Your task to perform on an android device: change keyboard looks Image 0: 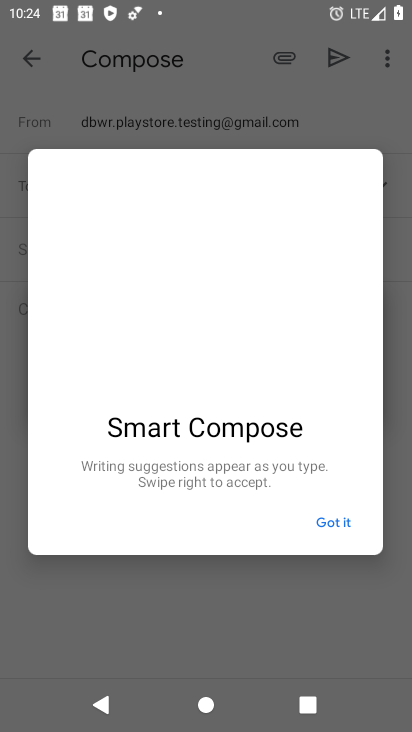
Step 0: press home button
Your task to perform on an android device: change keyboard looks Image 1: 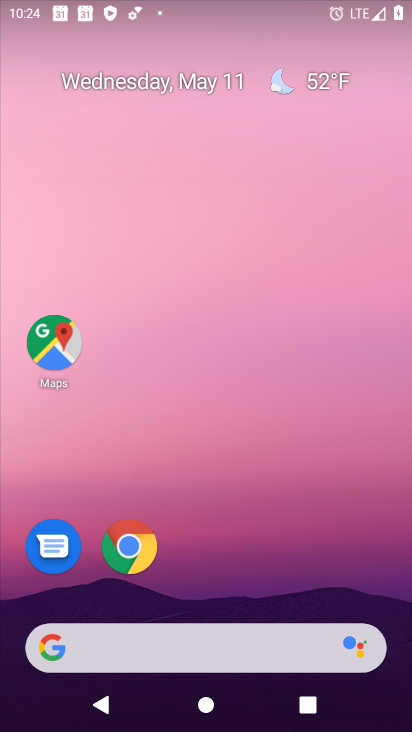
Step 1: drag from (226, 658) to (271, 191)
Your task to perform on an android device: change keyboard looks Image 2: 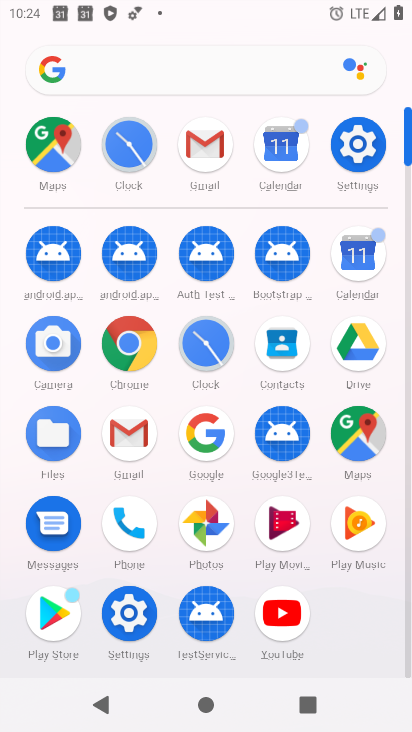
Step 2: click (126, 612)
Your task to perform on an android device: change keyboard looks Image 3: 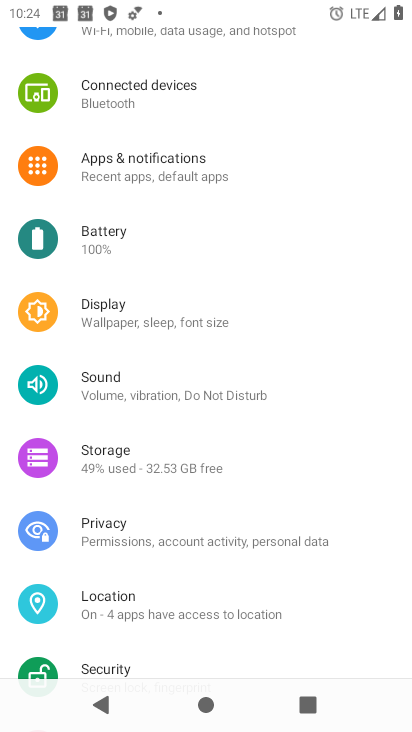
Step 3: drag from (196, 576) to (163, 46)
Your task to perform on an android device: change keyboard looks Image 4: 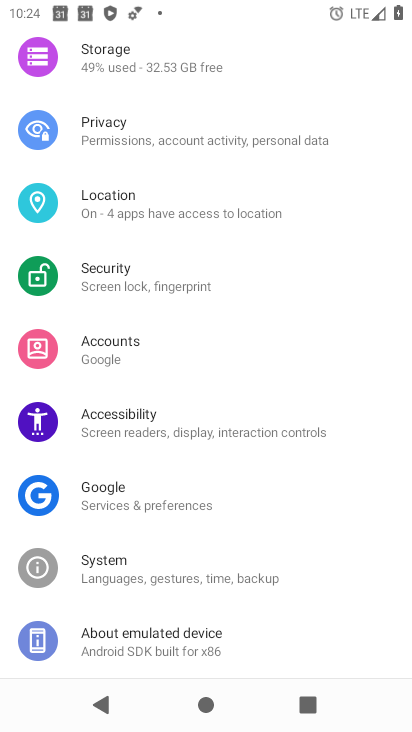
Step 4: click (178, 590)
Your task to perform on an android device: change keyboard looks Image 5: 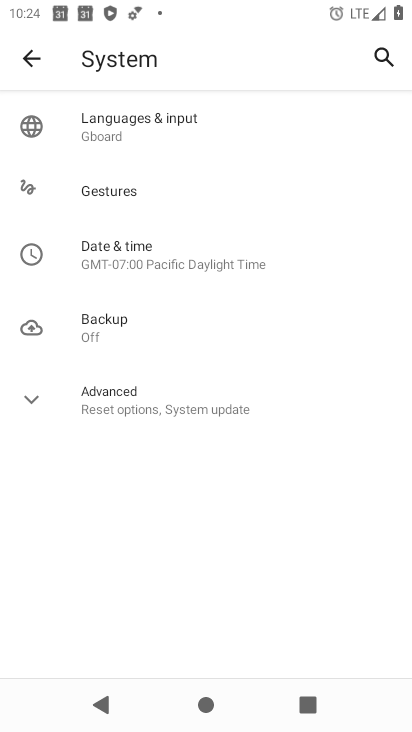
Step 5: click (111, 122)
Your task to perform on an android device: change keyboard looks Image 6: 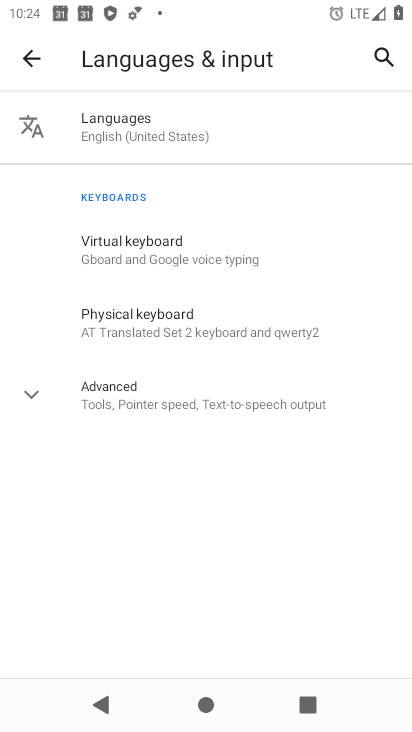
Step 6: click (177, 280)
Your task to perform on an android device: change keyboard looks Image 7: 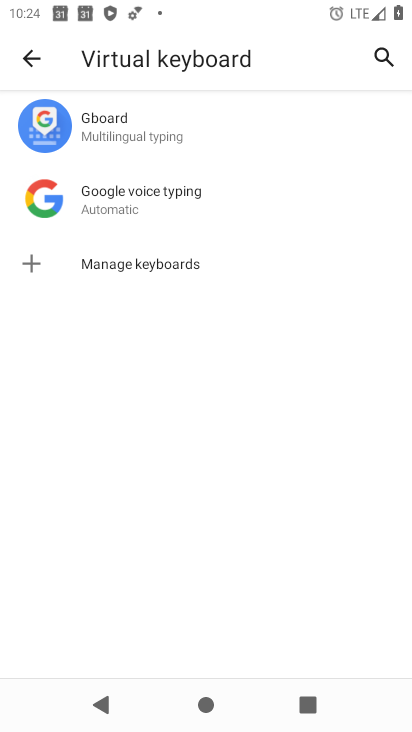
Step 7: click (106, 118)
Your task to perform on an android device: change keyboard looks Image 8: 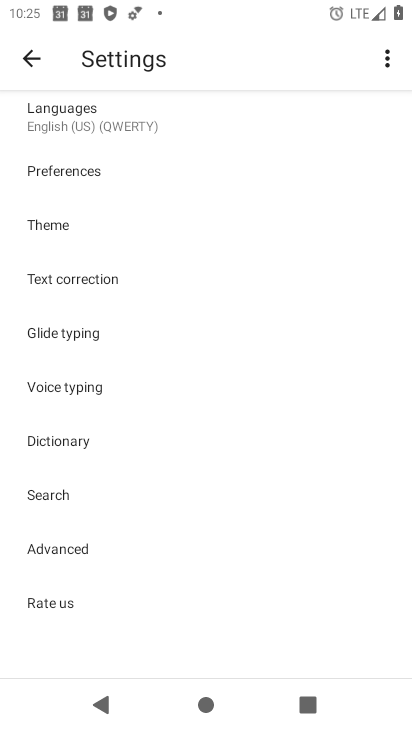
Step 8: click (72, 227)
Your task to perform on an android device: change keyboard looks Image 9: 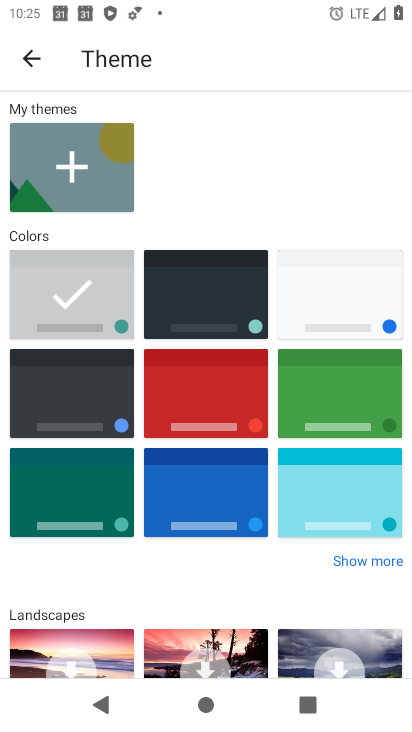
Step 9: click (205, 410)
Your task to perform on an android device: change keyboard looks Image 10: 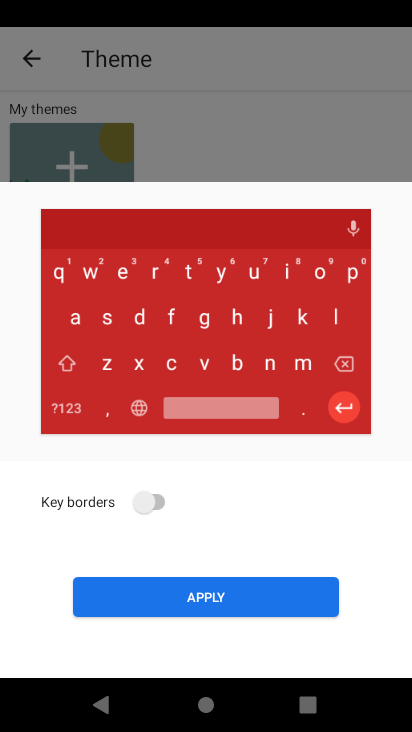
Step 10: click (278, 601)
Your task to perform on an android device: change keyboard looks Image 11: 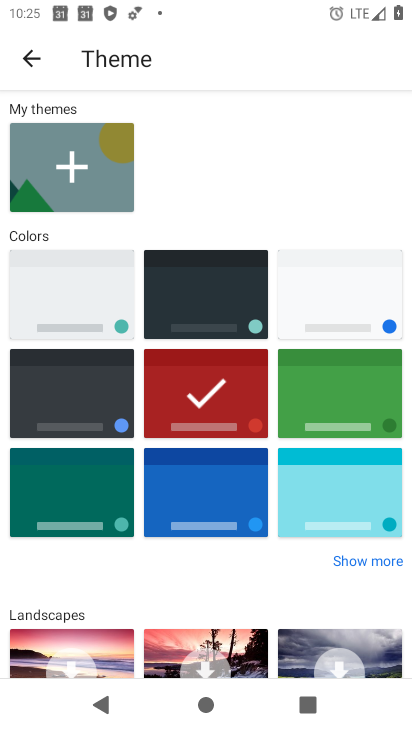
Step 11: task complete